Your task to perform on an android device: Open display settings Image 0: 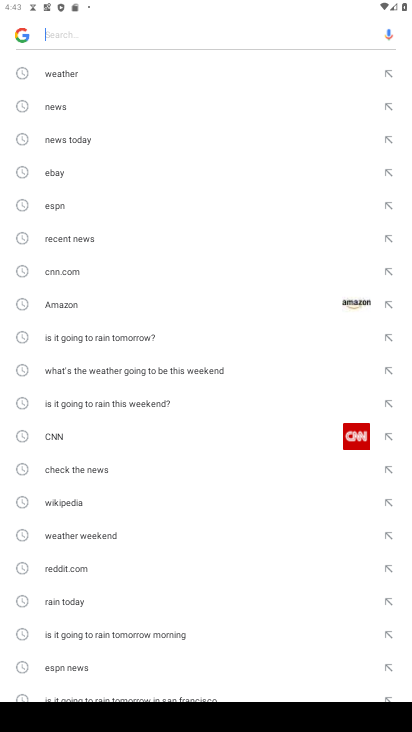
Step 0: press home button
Your task to perform on an android device: Open display settings Image 1: 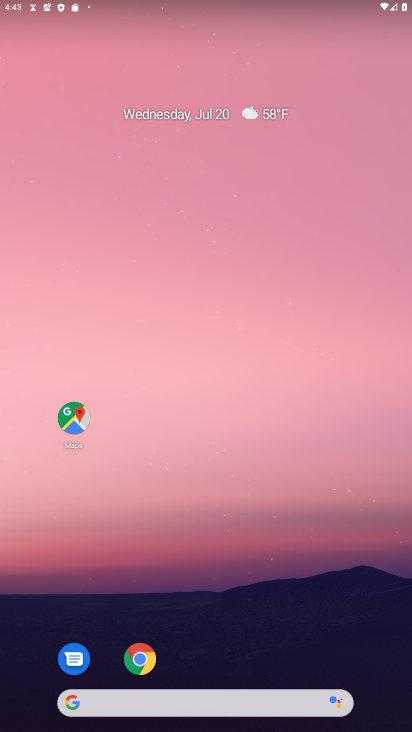
Step 1: drag from (238, 636) to (361, 18)
Your task to perform on an android device: Open display settings Image 2: 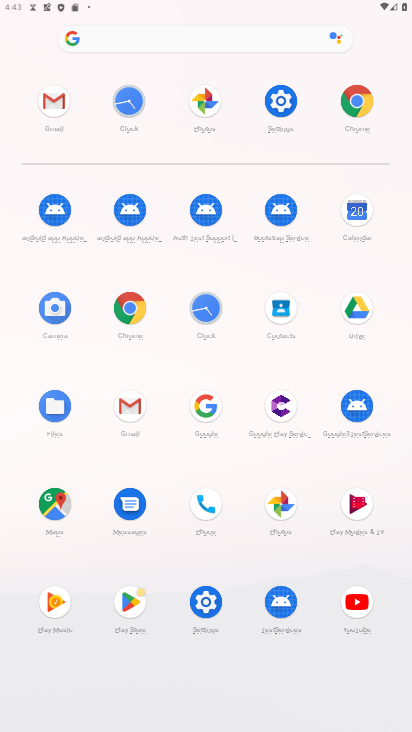
Step 2: click (283, 95)
Your task to perform on an android device: Open display settings Image 3: 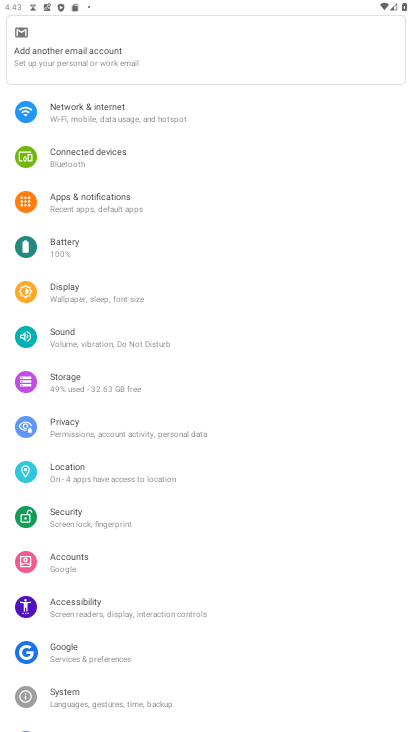
Step 3: click (101, 288)
Your task to perform on an android device: Open display settings Image 4: 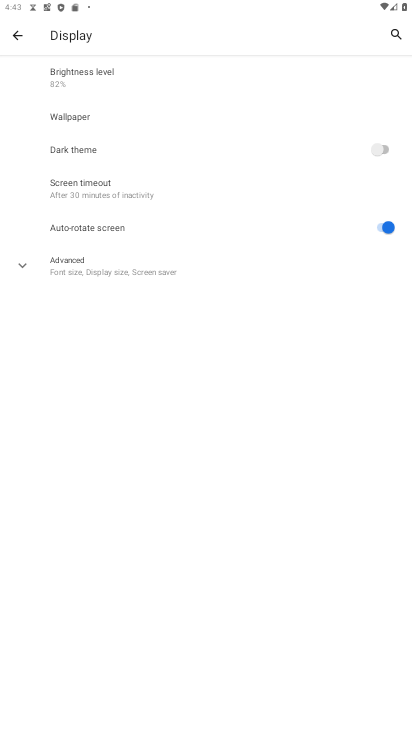
Step 4: task complete